Your task to perform on an android device: turn off improve location accuracy Image 0: 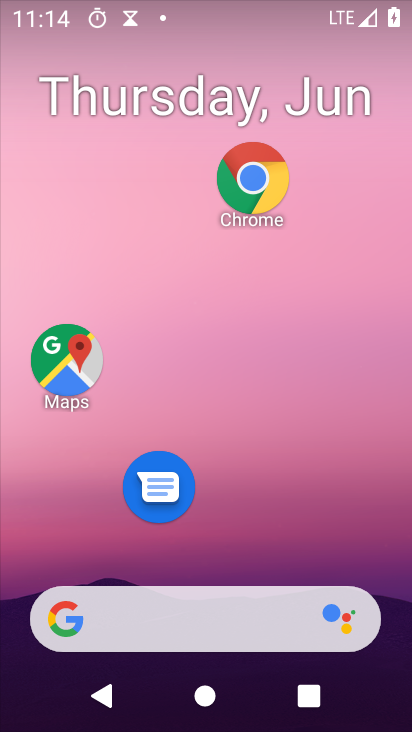
Step 0: drag from (240, 722) to (189, 102)
Your task to perform on an android device: turn off improve location accuracy Image 1: 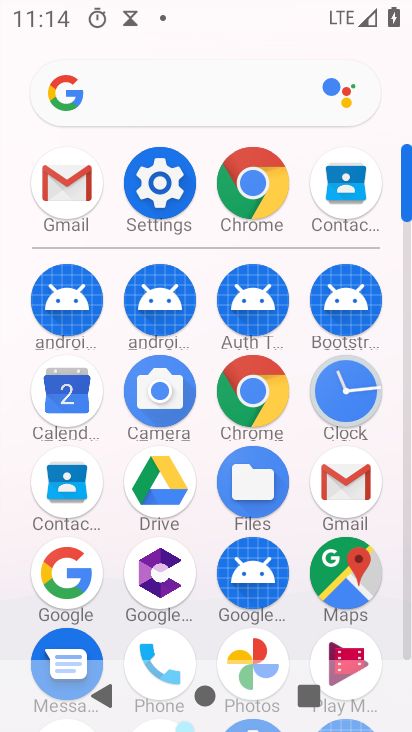
Step 1: click (160, 186)
Your task to perform on an android device: turn off improve location accuracy Image 2: 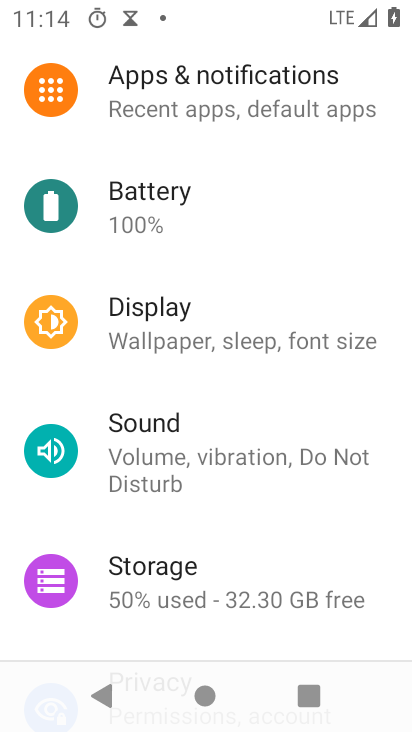
Step 2: drag from (169, 585) to (168, 184)
Your task to perform on an android device: turn off improve location accuracy Image 3: 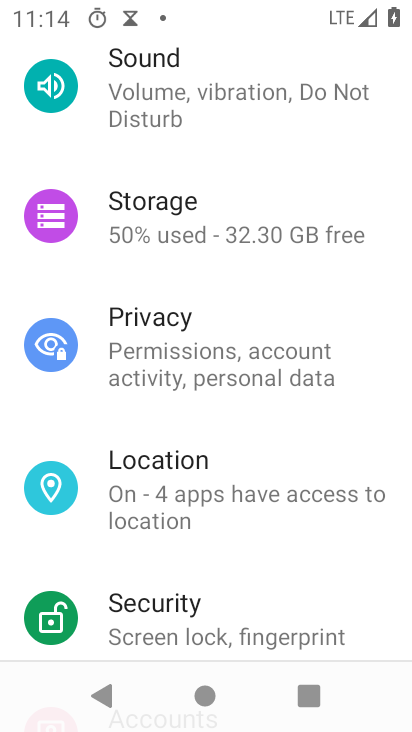
Step 3: click (137, 492)
Your task to perform on an android device: turn off improve location accuracy Image 4: 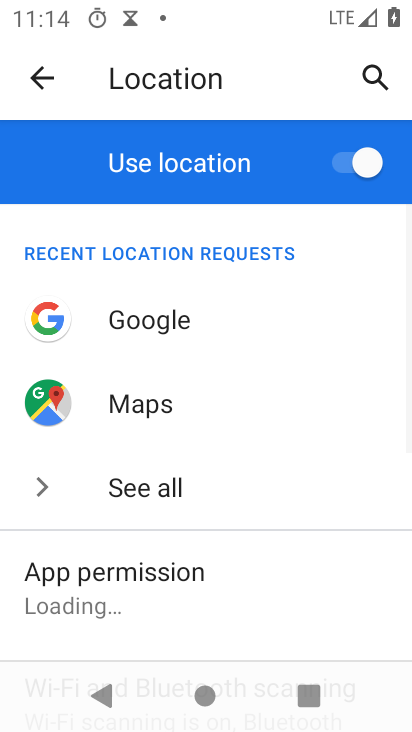
Step 4: drag from (175, 637) to (179, 187)
Your task to perform on an android device: turn off improve location accuracy Image 5: 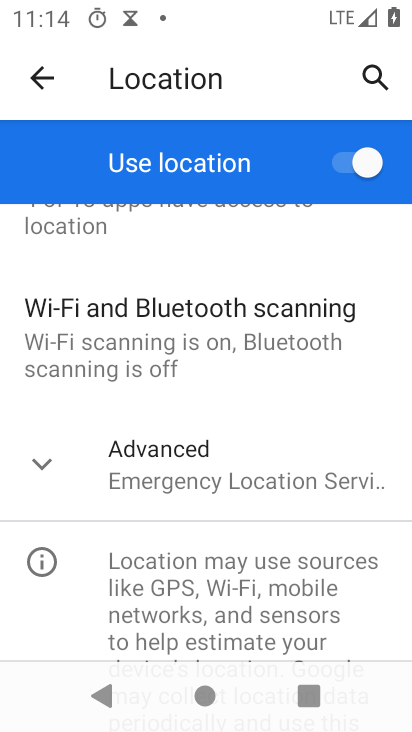
Step 5: click (143, 476)
Your task to perform on an android device: turn off improve location accuracy Image 6: 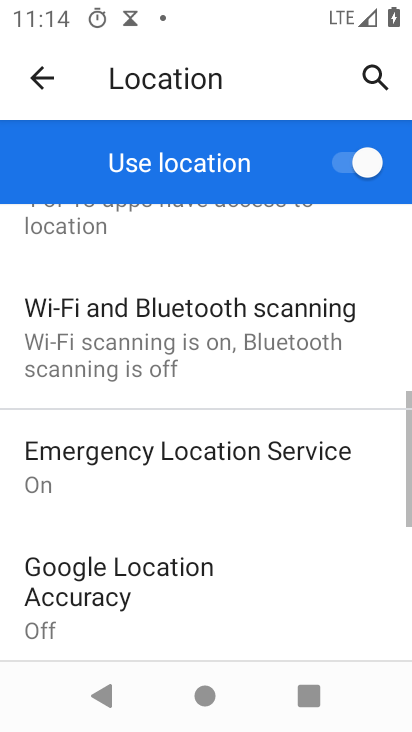
Step 6: drag from (175, 632) to (174, 315)
Your task to perform on an android device: turn off improve location accuracy Image 7: 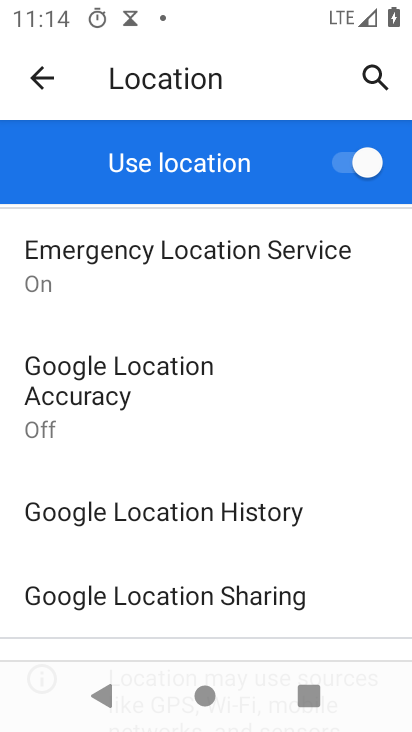
Step 7: click (85, 382)
Your task to perform on an android device: turn off improve location accuracy Image 8: 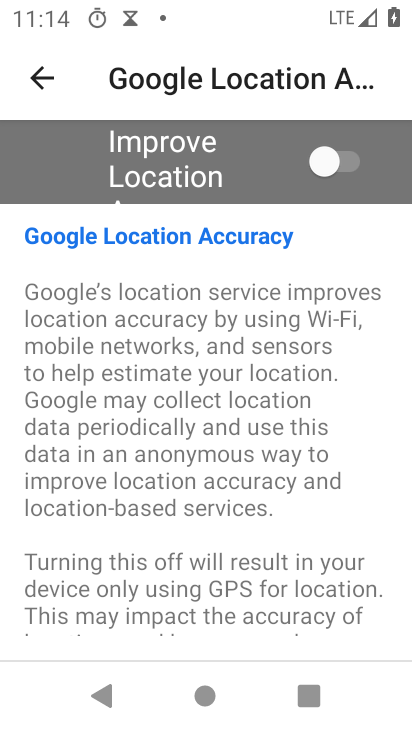
Step 8: task complete